Your task to perform on an android device: Go to accessibility settings Image 0: 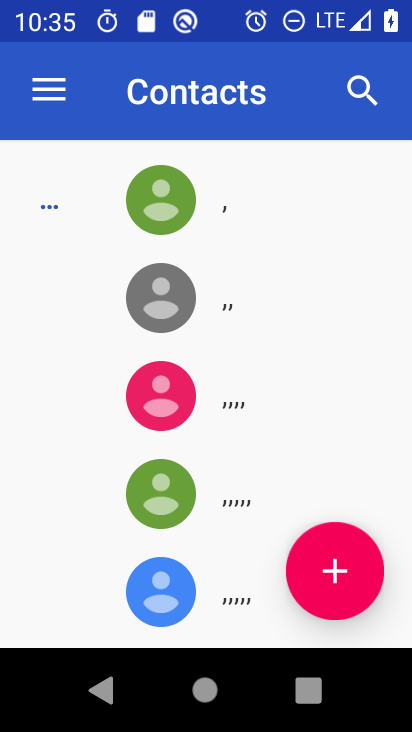
Step 0: drag from (249, 440) to (253, 12)
Your task to perform on an android device: Go to accessibility settings Image 1: 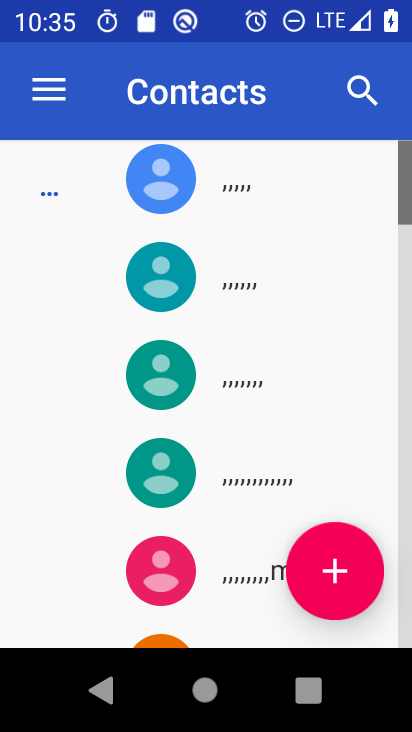
Step 1: press home button
Your task to perform on an android device: Go to accessibility settings Image 2: 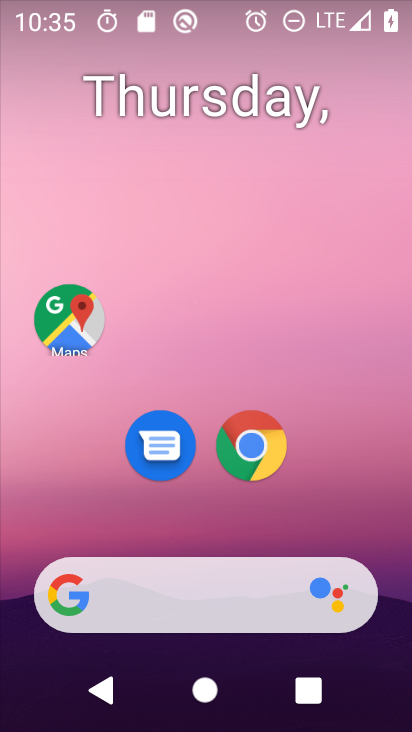
Step 2: drag from (215, 537) to (286, 108)
Your task to perform on an android device: Go to accessibility settings Image 3: 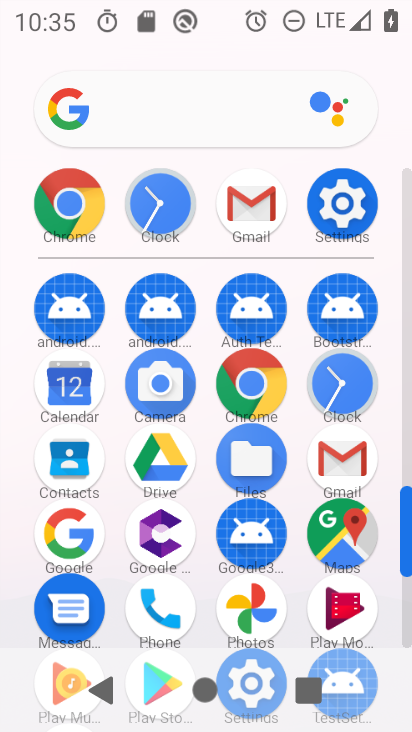
Step 3: click (359, 189)
Your task to perform on an android device: Go to accessibility settings Image 4: 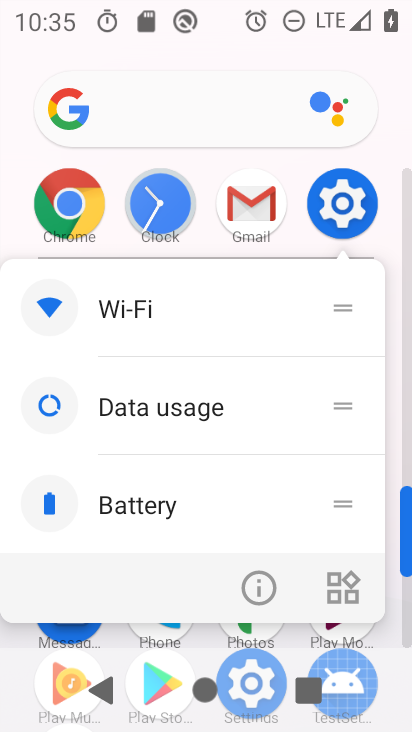
Step 4: click (262, 567)
Your task to perform on an android device: Go to accessibility settings Image 5: 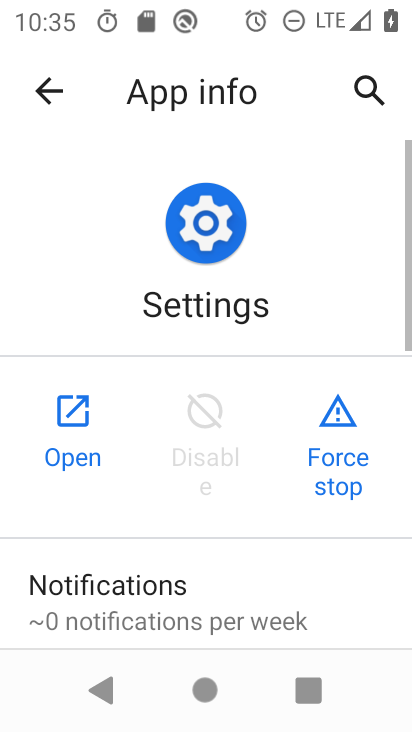
Step 5: click (42, 404)
Your task to perform on an android device: Go to accessibility settings Image 6: 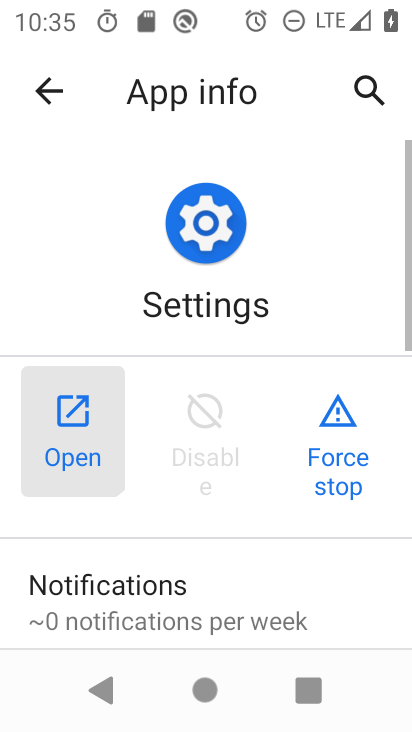
Step 6: click (74, 416)
Your task to perform on an android device: Go to accessibility settings Image 7: 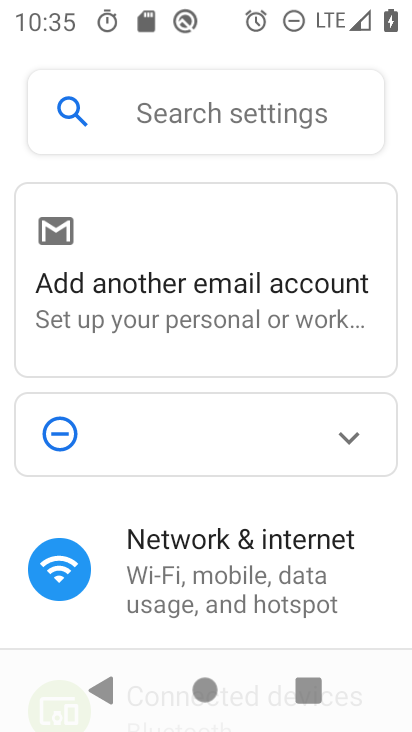
Step 7: drag from (237, 611) to (326, 122)
Your task to perform on an android device: Go to accessibility settings Image 8: 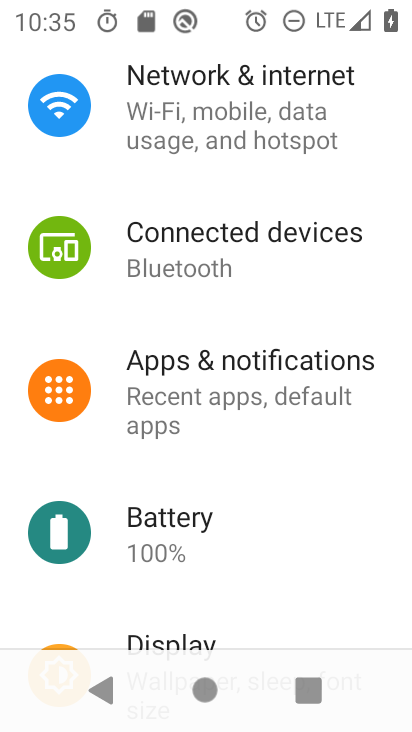
Step 8: drag from (236, 491) to (336, 74)
Your task to perform on an android device: Go to accessibility settings Image 9: 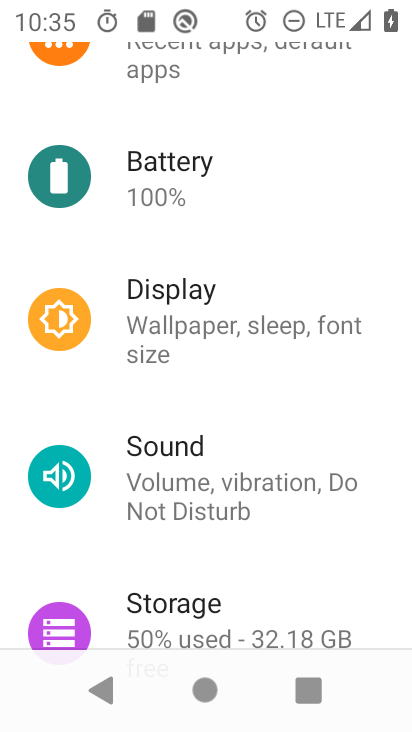
Step 9: drag from (239, 568) to (315, 107)
Your task to perform on an android device: Go to accessibility settings Image 10: 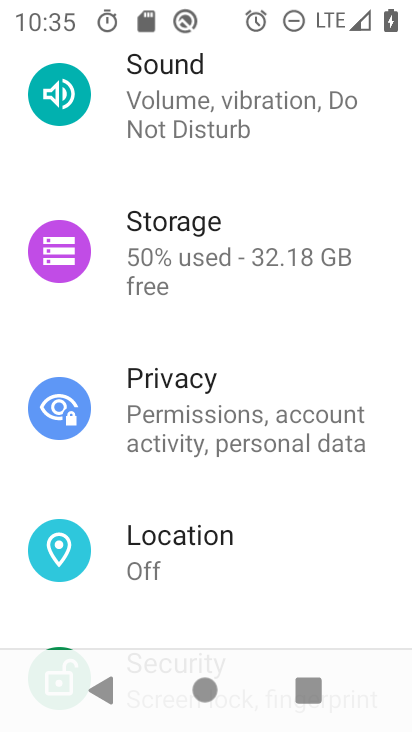
Step 10: drag from (224, 526) to (299, 93)
Your task to perform on an android device: Go to accessibility settings Image 11: 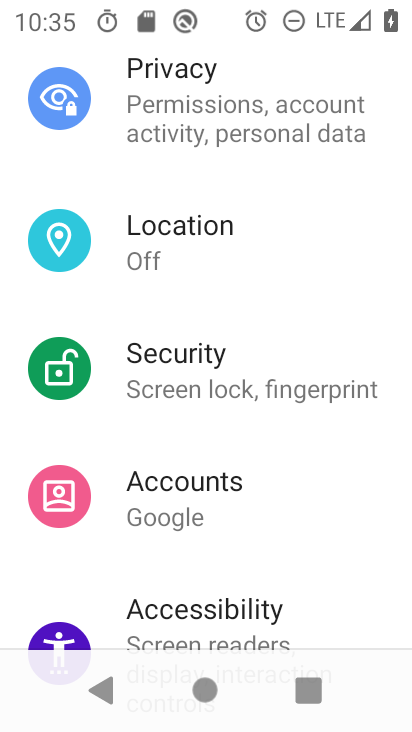
Step 11: drag from (233, 517) to (318, 0)
Your task to perform on an android device: Go to accessibility settings Image 12: 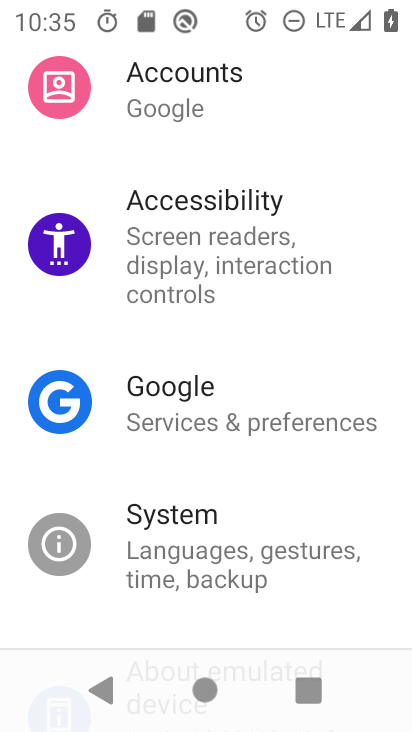
Step 12: click (160, 241)
Your task to perform on an android device: Go to accessibility settings Image 13: 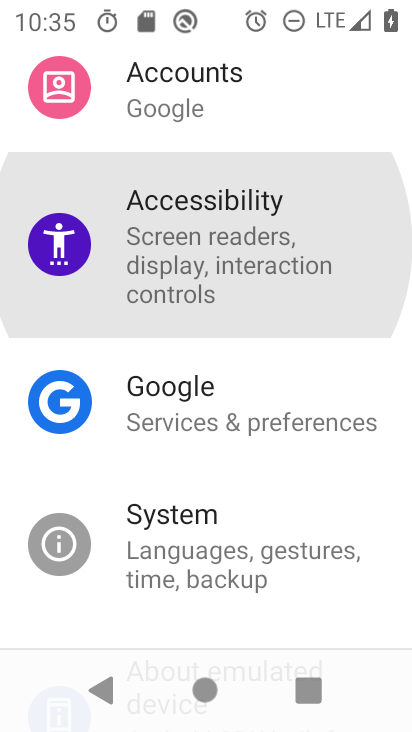
Step 13: click (160, 241)
Your task to perform on an android device: Go to accessibility settings Image 14: 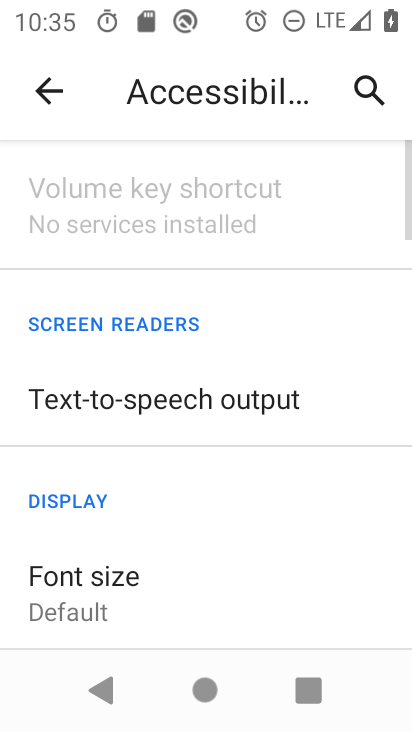
Step 14: task complete